Your task to perform on an android device: clear history in the chrome app Image 0: 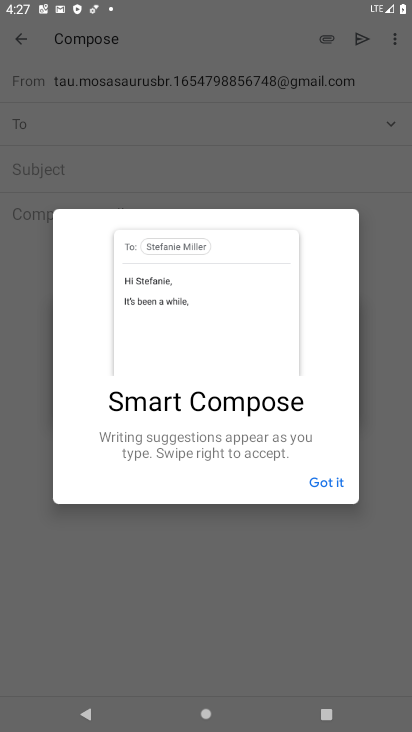
Step 0: press home button
Your task to perform on an android device: clear history in the chrome app Image 1: 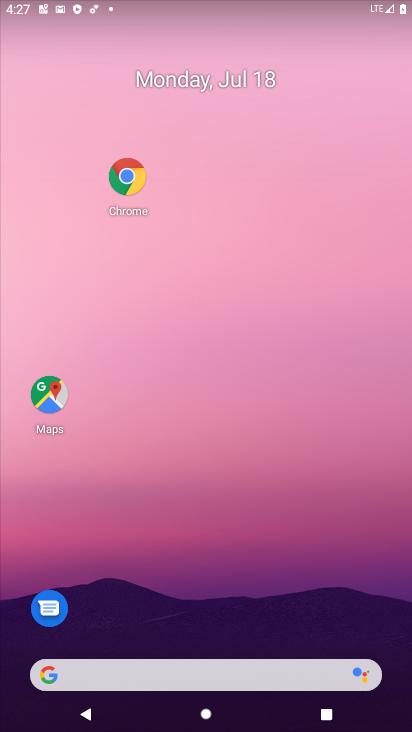
Step 1: drag from (240, 533) to (392, 50)
Your task to perform on an android device: clear history in the chrome app Image 2: 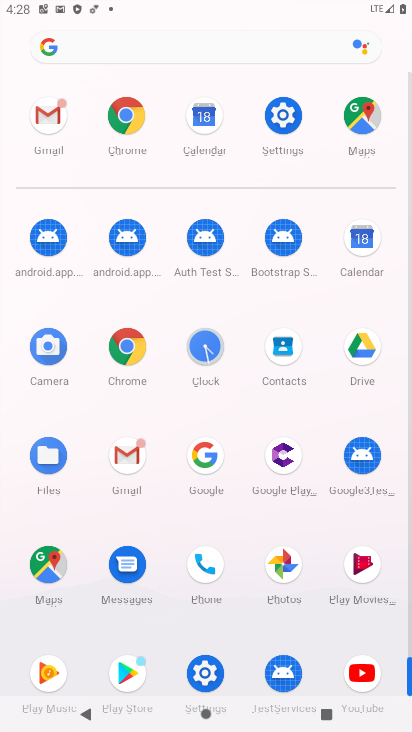
Step 2: drag from (237, 499) to (293, 138)
Your task to perform on an android device: clear history in the chrome app Image 3: 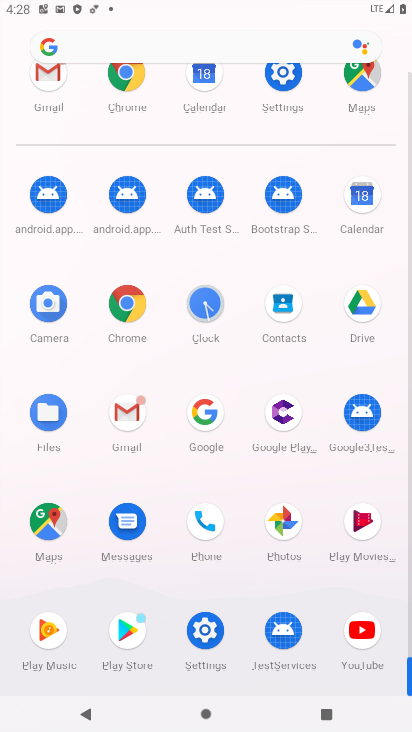
Step 3: click (132, 314)
Your task to perform on an android device: clear history in the chrome app Image 4: 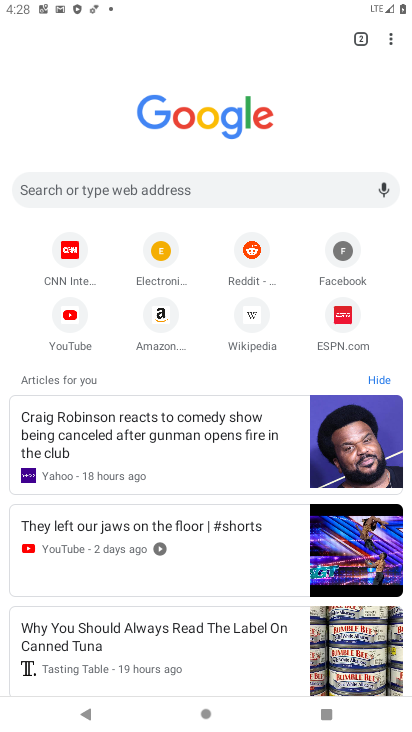
Step 4: click (394, 30)
Your task to perform on an android device: clear history in the chrome app Image 5: 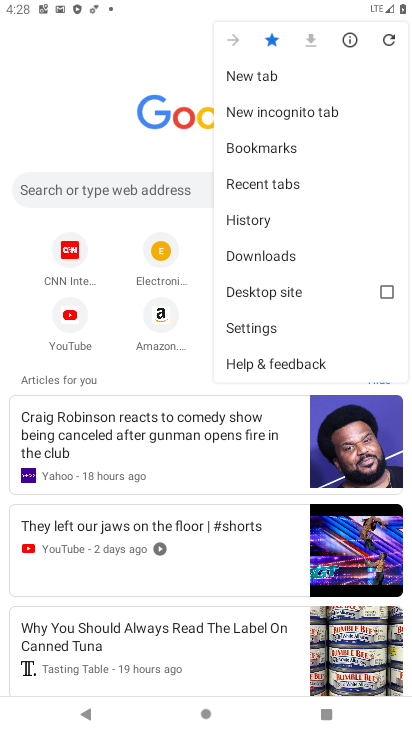
Step 5: click (269, 213)
Your task to perform on an android device: clear history in the chrome app Image 6: 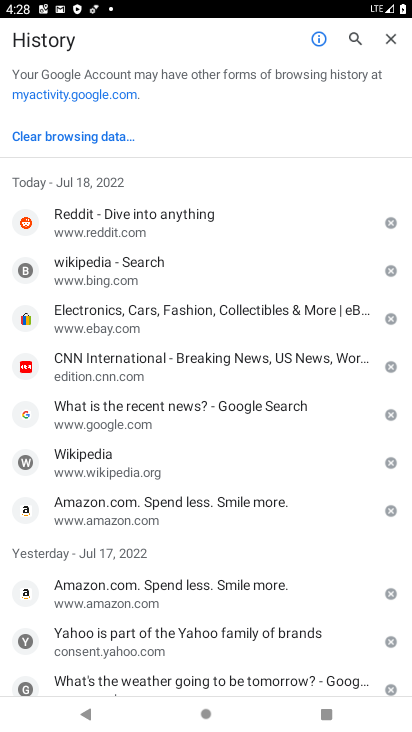
Step 6: click (90, 134)
Your task to perform on an android device: clear history in the chrome app Image 7: 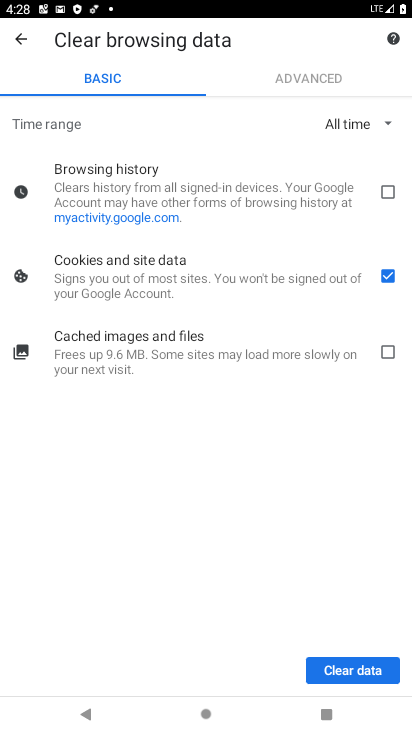
Step 7: click (391, 198)
Your task to perform on an android device: clear history in the chrome app Image 8: 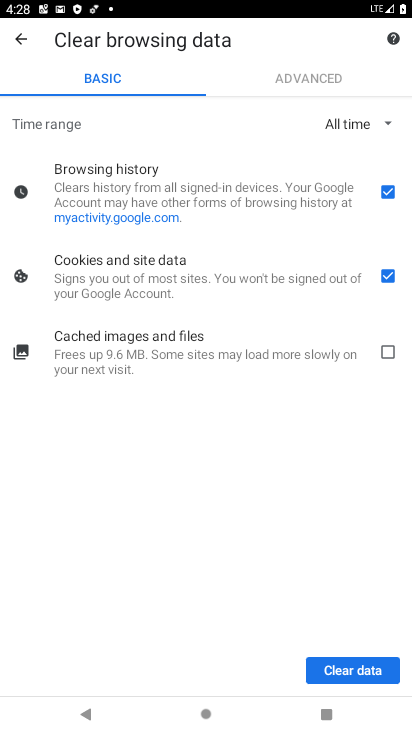
Step 8: click (391, 272)
Your task to perform on an android device: clear history in the chrome app Image 9: 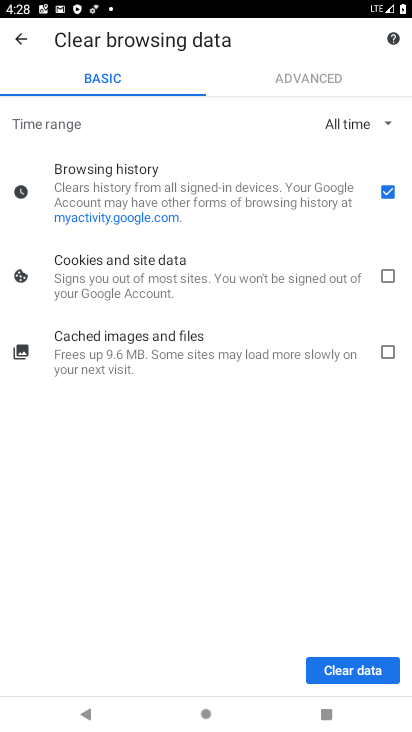
Step 9: click (348, 671)
Your task to perform on an android device: clear history in the chrome app Image 10: 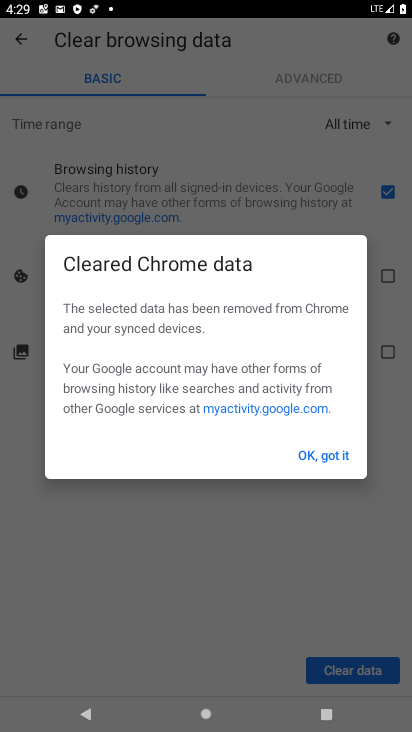
Step 10: click (317, 446)
Your task to perform on an android device: clear history in the chrome app Image 11: 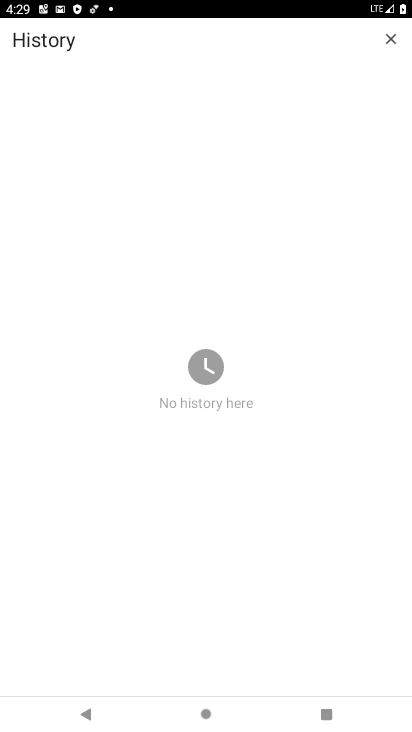
Step 11: task complete